Your task to perform on an android device: allow notifications from all sites in the chrome app Image 0: 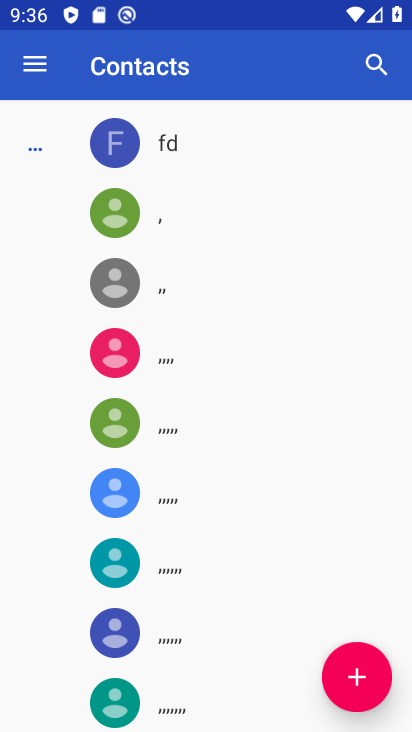
Step 0: press home button
Your task to perform on an android device: allow notifications from all sites in the chrome app Image 1: 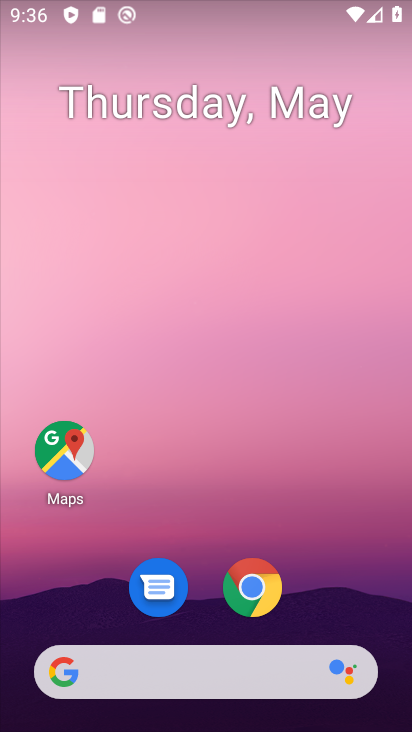
Step 1: click (261, 581)
Your task to perform on an android device: allow notifications from all sites in the chrome app Image 2: 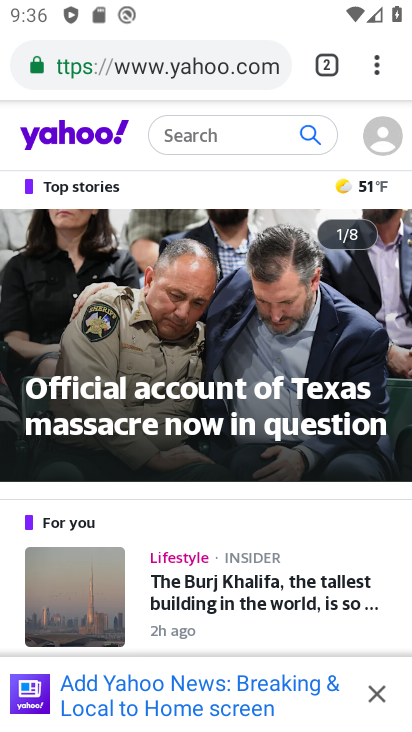
Step 2: click (371, 62)
Your task to perform on an android device: allow notifications from all sites in the chrome app Image 3: 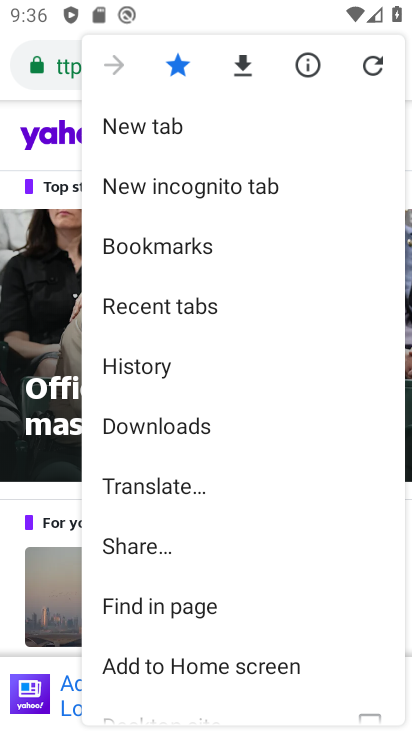
Step 3: drag from (189, 564) to (241, 81)
Your task to perform on an android device: allow notifications from all sites in the chrome app Image 4: 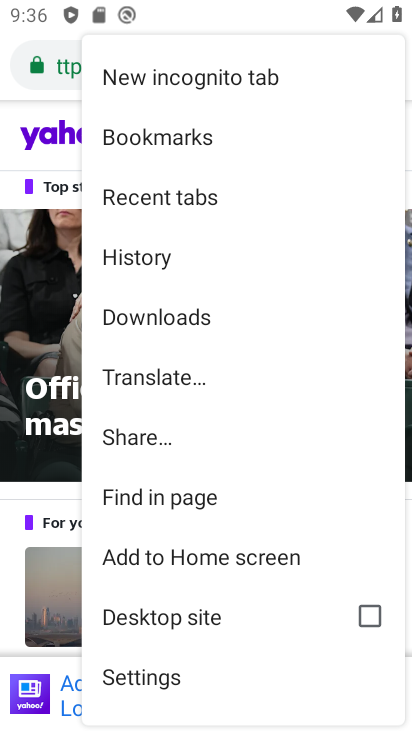
Step 4: click (139, 670)
Your task to perform on an android device: allow notifications from all sites in the chrome app Image 5: 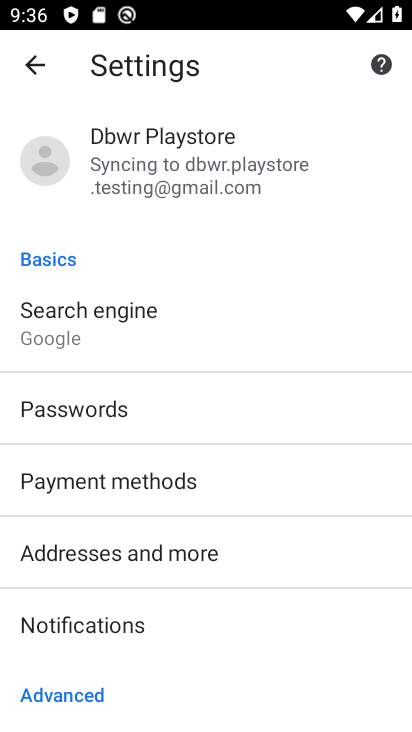
Step 5: drag from (146, 699) to (123, 93)
Your task to perform on an android device: allow notifications from all sites in the chrome app Image 6: 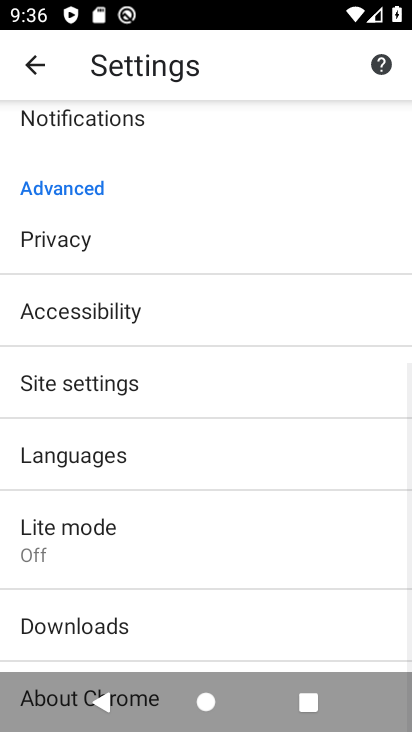
Step 6: click (123, 93)
Your task to perform on an android device: allow notifications from all sites in the chrome app Image 7: 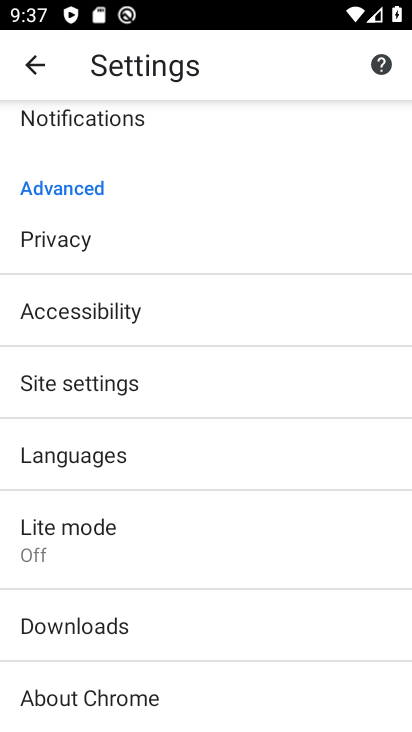
Step 7: click (108, 390)
Your task to perform on an android device: allow notifications from all sites in the chrome app Image 8: 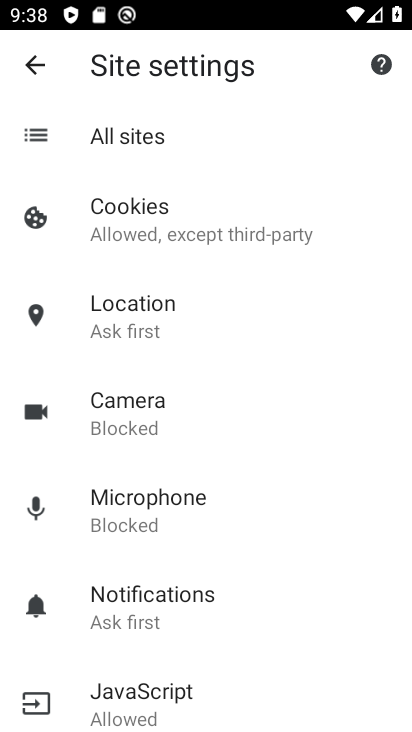
Step 8: click (156, 607)
Your task to perform on an android device: allow notifications from all sites in the chrome app Image 9: 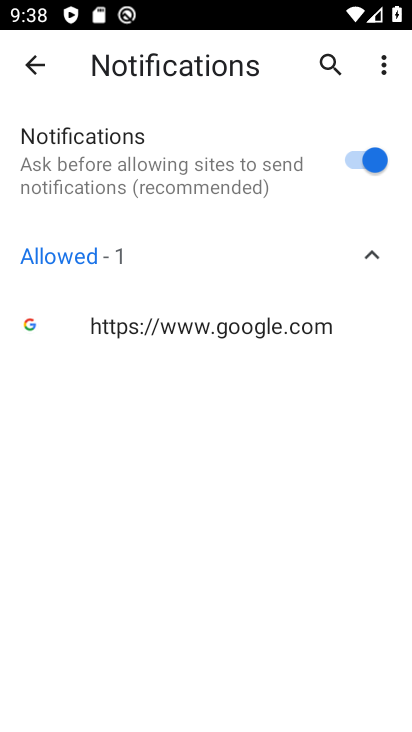
Step 9: task complete